Your task to perform on an android device: set the timer Image 0: 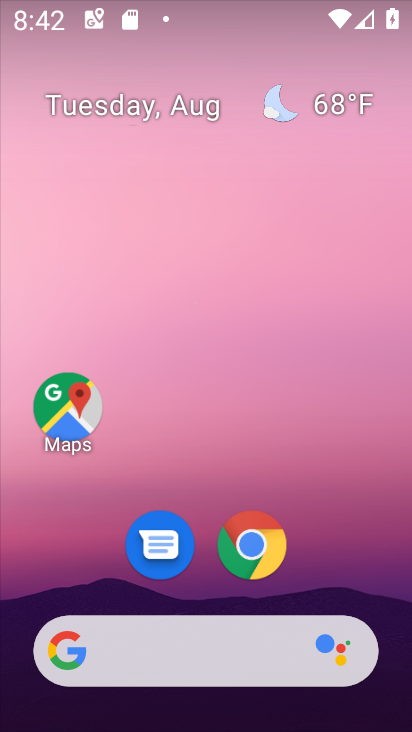
Step 0: drag from (252, 645) to (299, 243)
Your task to perform on an android device: set the timer Image 1: 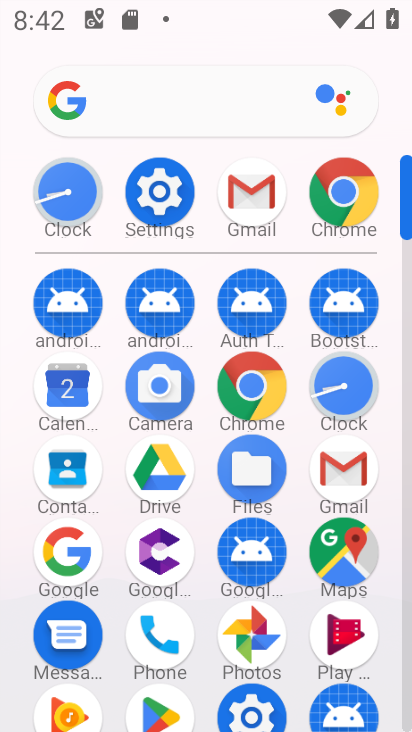
Step 1: click (357, 401)
Your task to perform on an android device: set the timer Image 2: 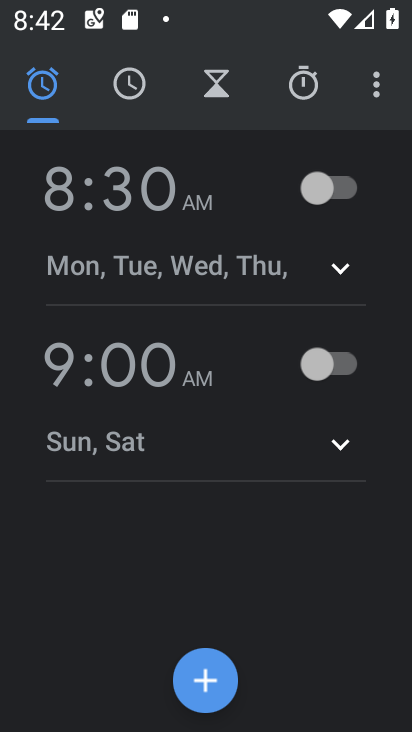
Step 2: click (213, 85)
Your task to perform on an android device: set the timer Image 3: 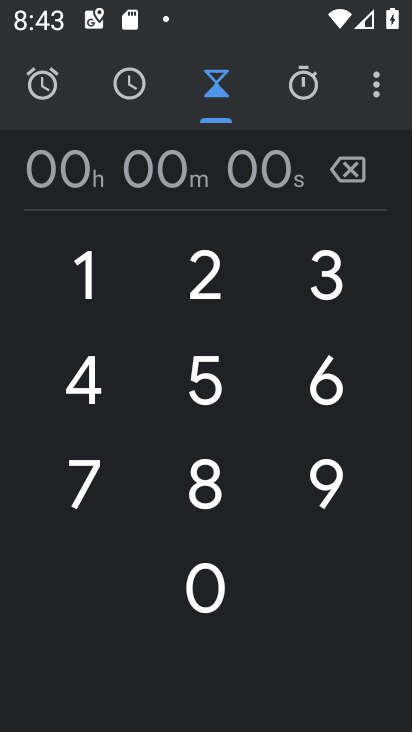
Step 3: click (182, 278)
Your task to perform on an android device: set the timer Image 4: 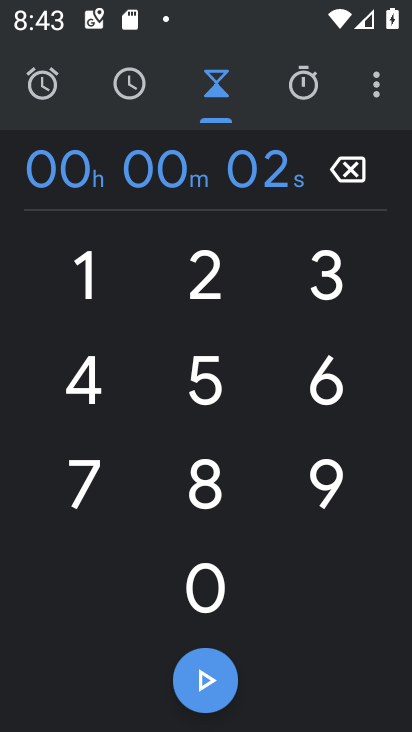
Step 4: click (209, 687)
Your task to perform on an android device: set the timer Image 5: 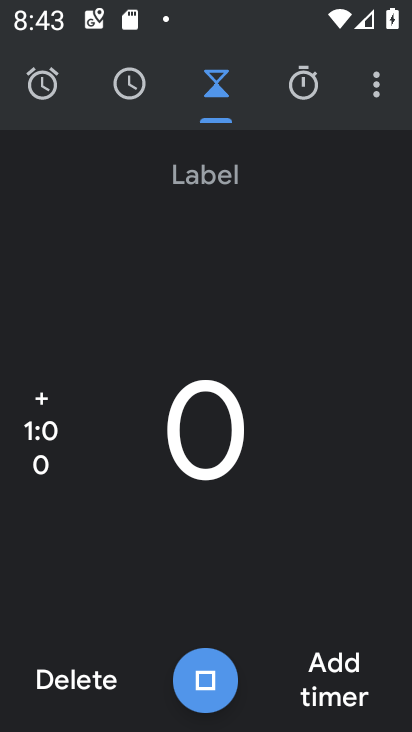
Step 5: task complete